Your task to perform on an android device: Open CNN.com Image 0: 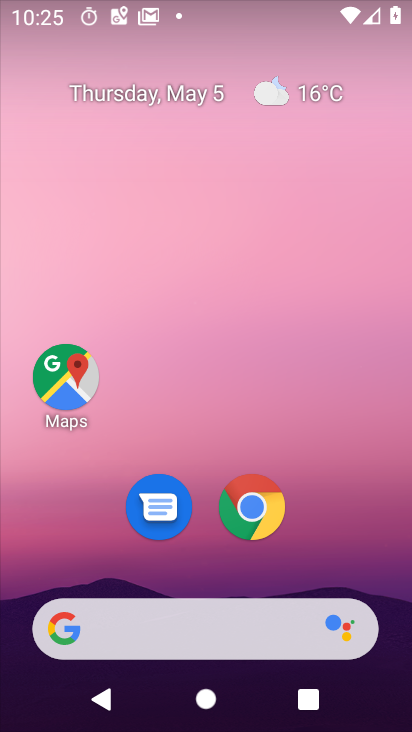
Step 0: click (253, 516)
Your task to perform on an android device: Open CNN.com Image 1: 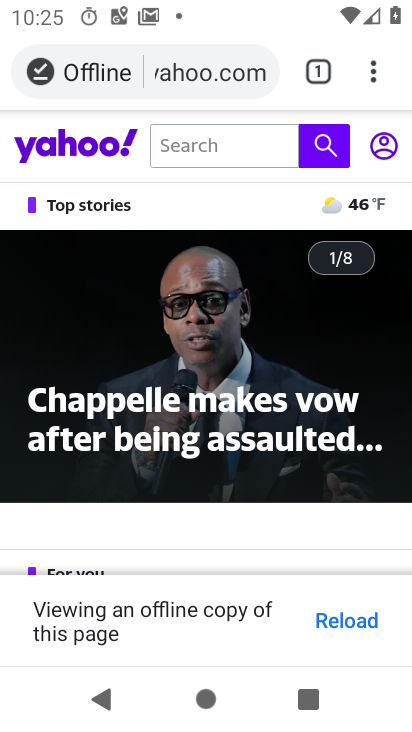
Step 1: click (136, 74)
Your task to perform on an android device: Open CNN.com Image 2: 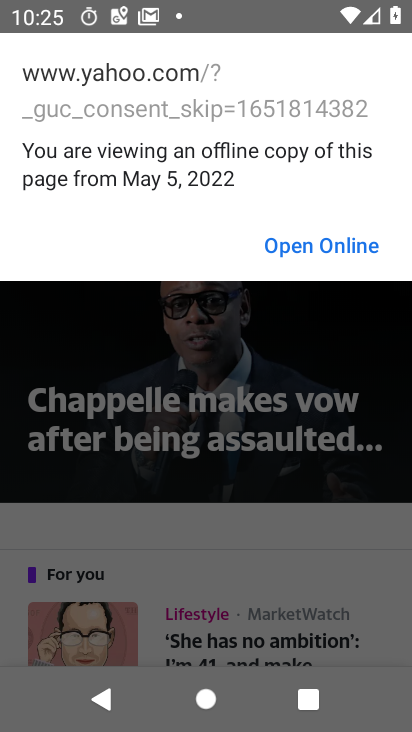
Step 2: click (326, 250)
Your task to perform on an android device: Open CNN.com Image 3: 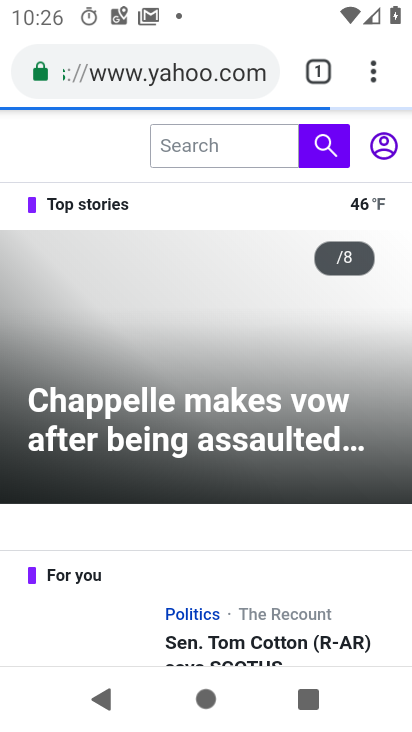
Step 3: click (113, 71)
Your task to perform on an android device: Open CNN.com Image 4: 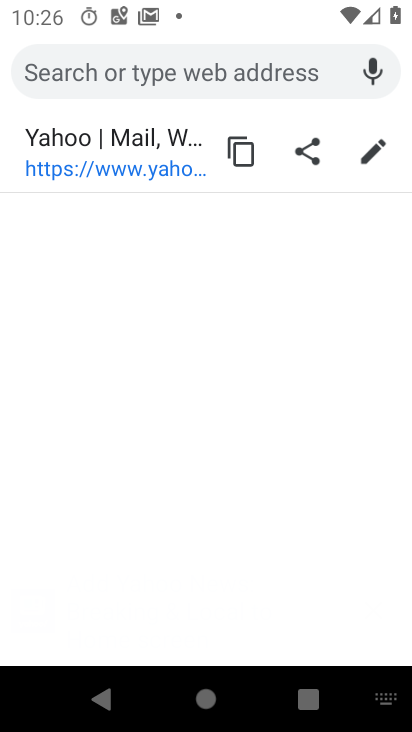
Step 4: type "CNN.com"
Your task to perform on an android device: Open CNN.com Image 5: 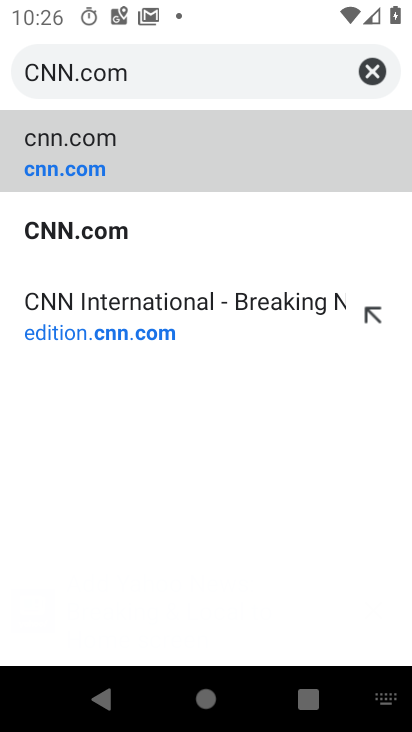
Step 5: click (110, 233)
Your task to perform on an android device: Open CNN.com Image 6: 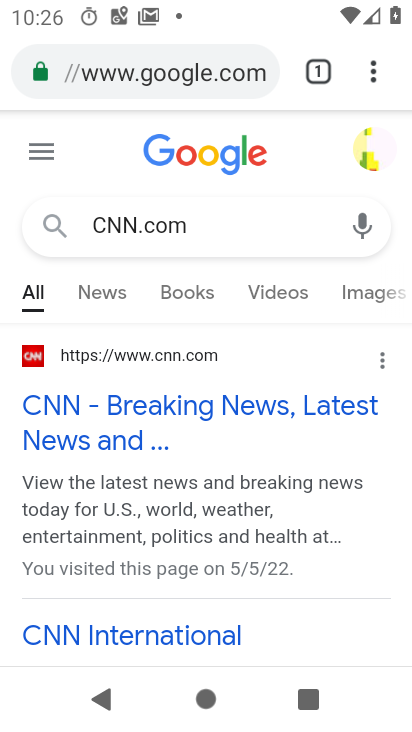
Step 6: task complete